Your task to perform on an android device: turn off smart reply in the gmail app Image 0: 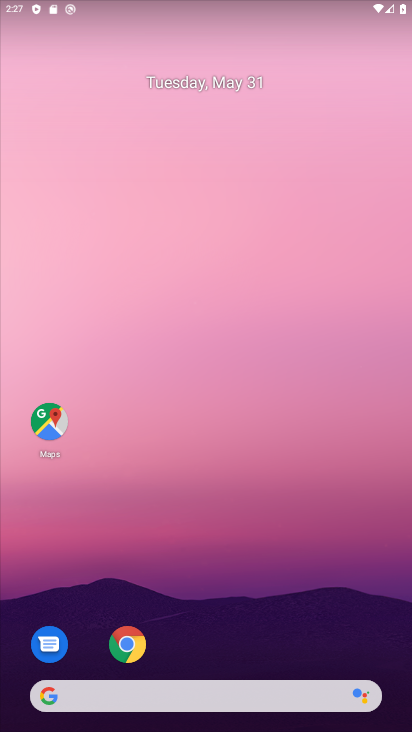
Step 0: drag from (119, 727) to (154, 78)
Your task to perform on an android device: turn off smart reply in the gmail app Image 1: 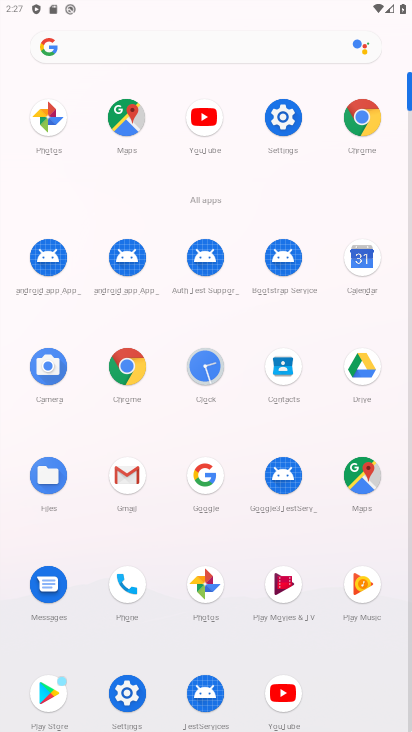
Step 1: click (125, 479)
Your task to perform on an android device: turn off smart reply in the gmail app Image 2: 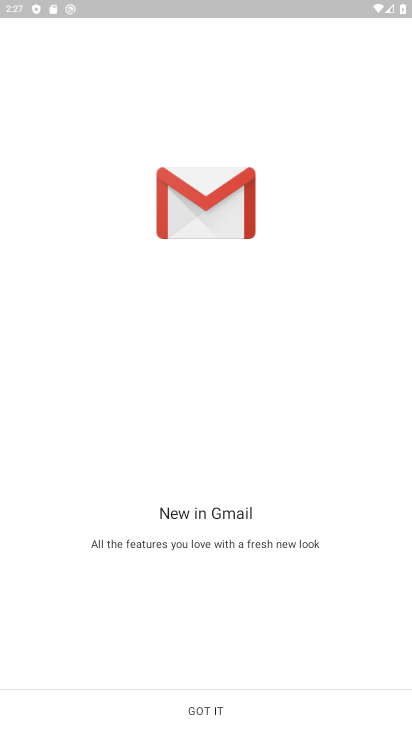
Step 2: click (208, 707)
Your task to perform on an android device: turn off smart reply in the gmail app Image 3: 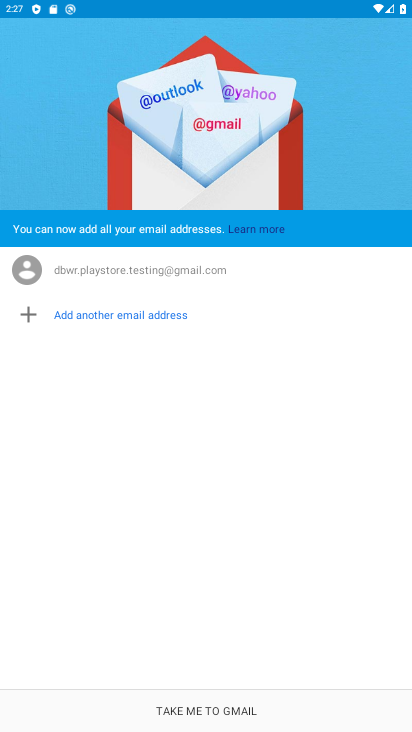
Step 3: click (207, 708)
Your task to perform on an android device: turn off smart reply in the gmail app Image 4: 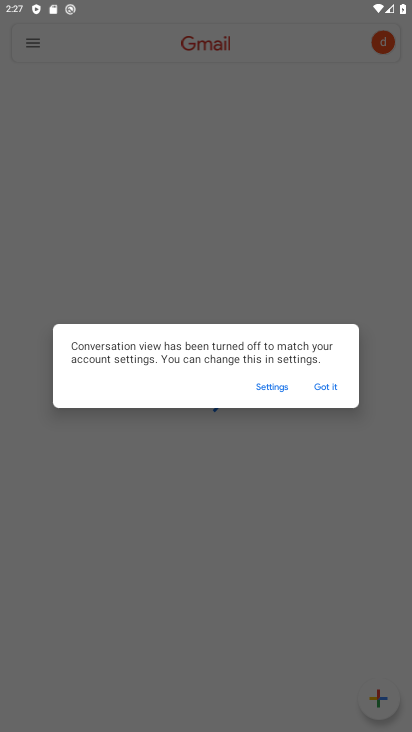
Step 4: click (327, 391)
Your task to perform on an android device: turn off smart reply in the gmail app Image 5: 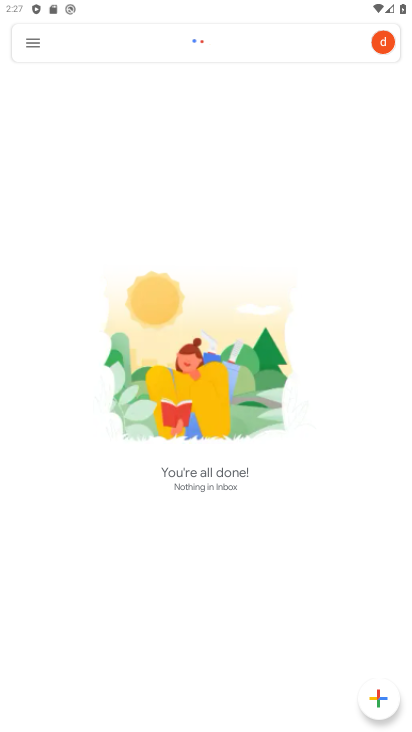
Step 5: click (21, 39)
Your task to perform on an android device: turn off smart reply in the gmail app Image 6: 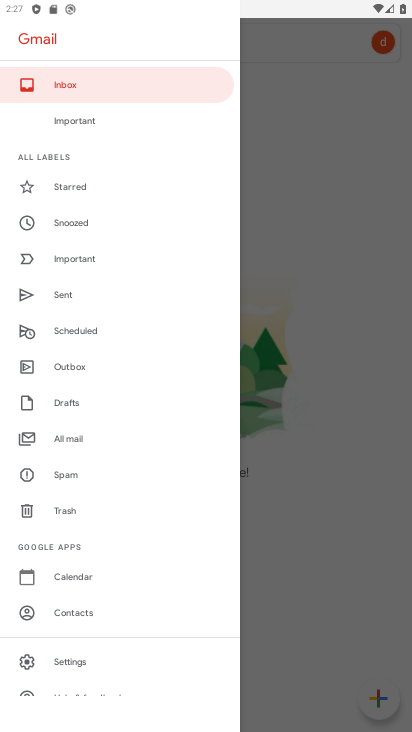
Step 6: click (76, 659)
Your task to perform on an android device: turn off smart reply in the gmail app Image 7: 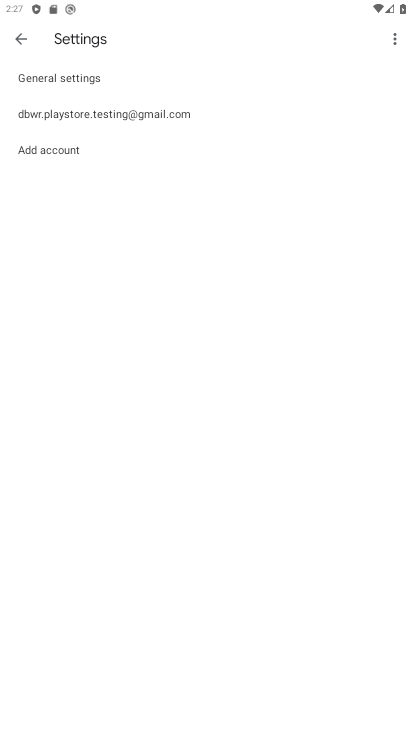
Step 7: click (145, 125)
Your task to perform on an android device: turn off smart reply in the gmail app Image 8: 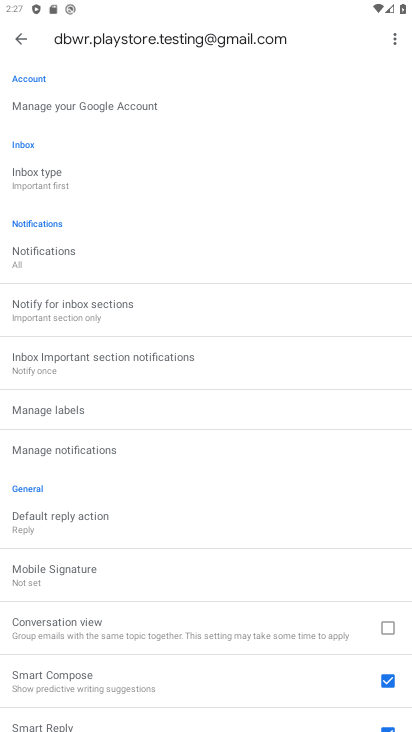
Step 8: drag from (163, 673) to (94, 302)
Your task to perform on an android device: turn off smart reply in the gmail app Image 9: 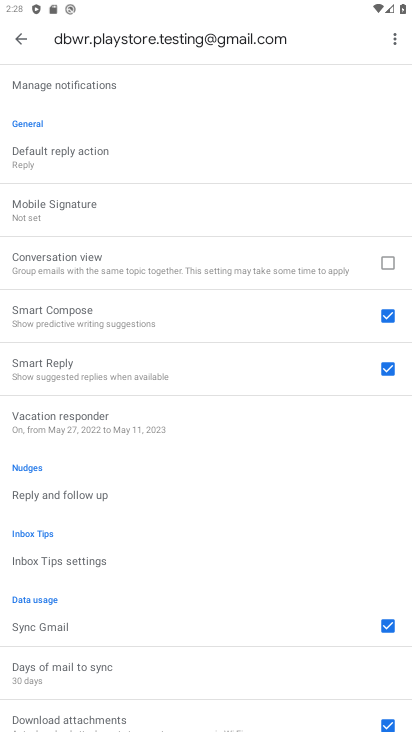
Step 9: click (382, 367)
Your task to perform on an android device: turn off smart reply in the gmail app Image 10: 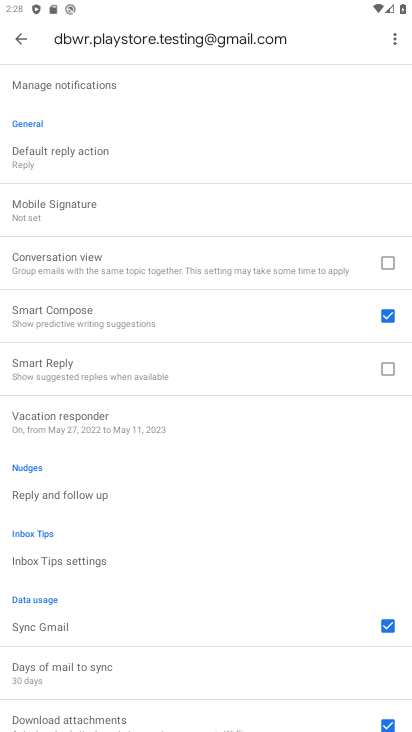
Step 10: task complete